Your task to perform on an android device: Open maps Image 0: 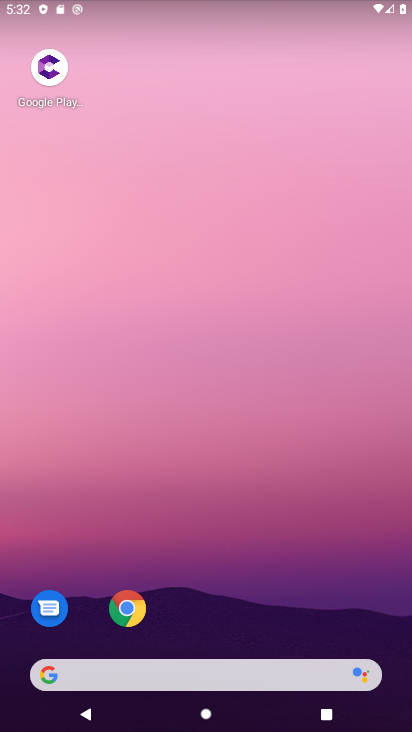
Step 0: drag from (232, 678) to (260, 60)
Your task to perform on an android device: Open maps Image 1: 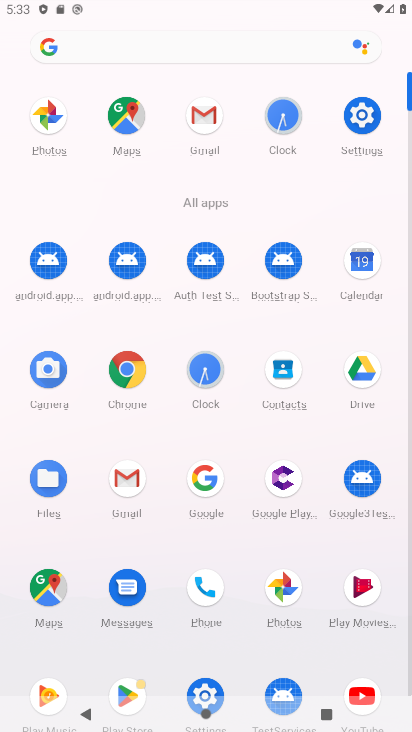
Step 1: click (52, 585)
Your task to perform on an android device: Open maps Image 2: 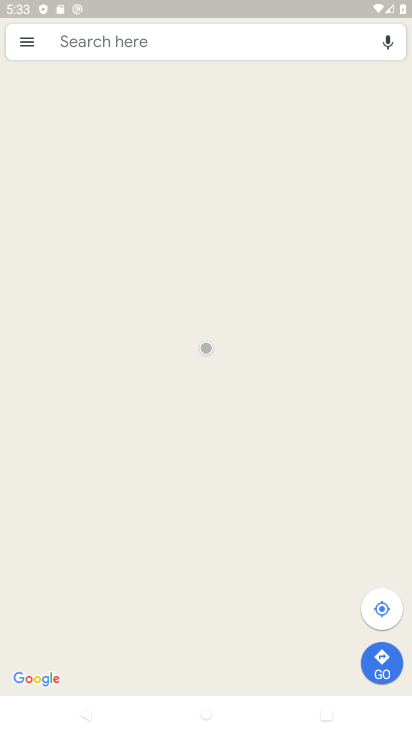
Step 2: task complete